Your task to perform on an android device: Is it going to rain tomorrow? Image 0: 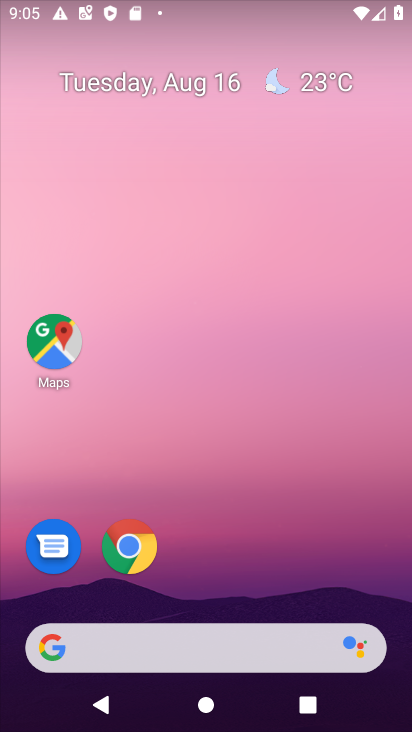
Step 0: click (318, 85)
Your task to perform on an android device: Is it going to rain tomorrow? Image 1: 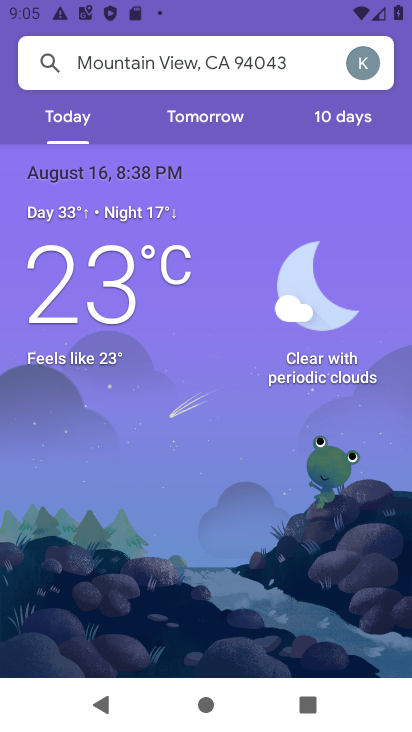
Step 1: click (214, 116)
Your task to perform on an android device: Is it going to rain tomorrow? Image 2: 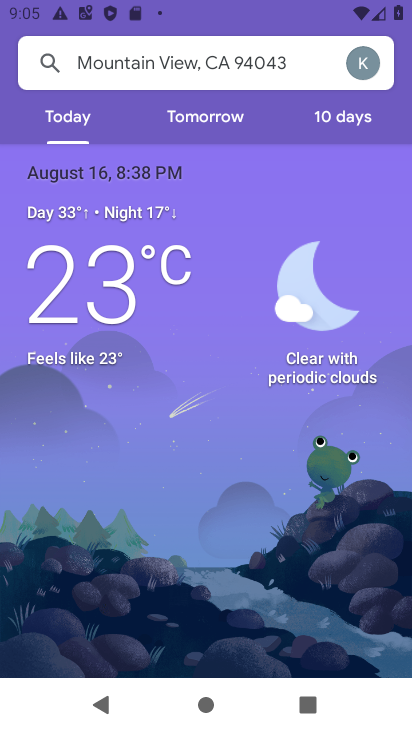
Step 2: click (206, 119)
Your task to perform on an android device: Is it going to rain tomorrow? Image 3: 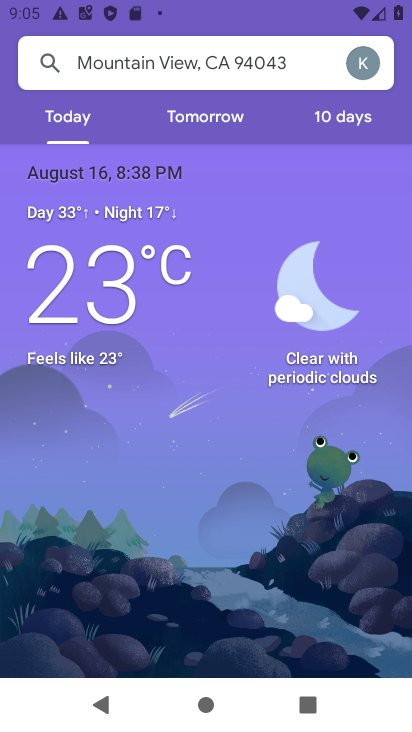
Step 3: click (206, 107)
Your task to perform on an android device: Is it going to rain tomorrow? Image 4: 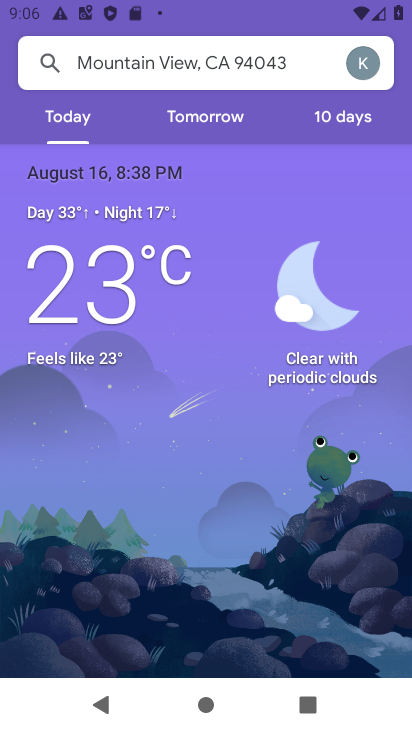
Step 4: click (207, 116)
Your task to perform on an android device: Is it going to rain tomorrow? Image 5: 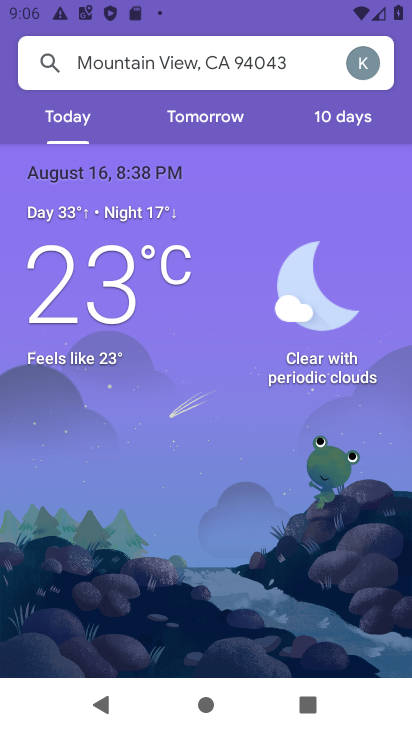
Step 5: click (206, 122)
Your task to perform on an android device: Is it going to rain tomorrow? Image 6: 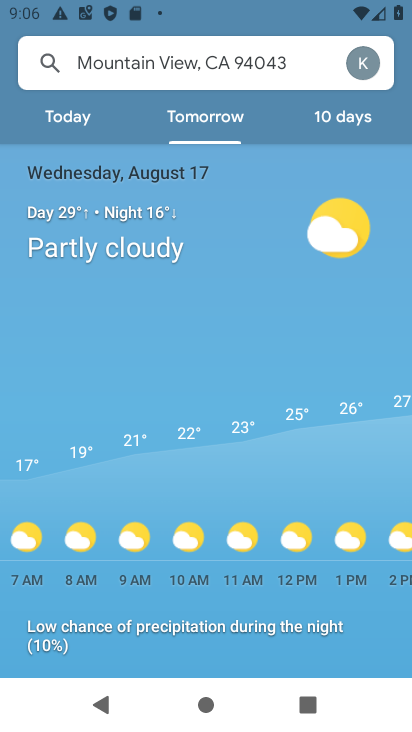
Step 6: task complete